Your task to perform on an android device: Open the calendar and show me this week's events? Image 0: 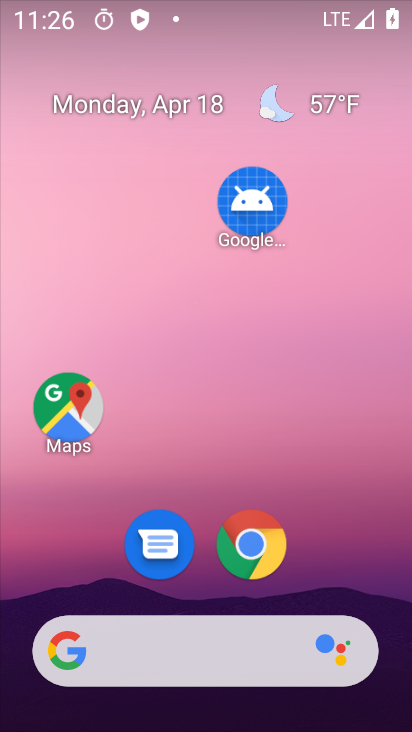
Step 0: drag from (157, 575) to (192, 272)
Your task to perform on an android device: Open the calendar and show me this week's events? Image 1: 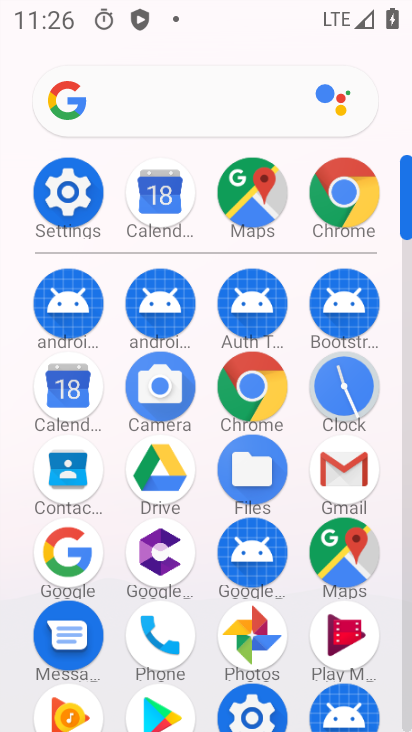
Step 1: click (56, 387)
Your task to perform on an android device: Open the calendar and show me this week's events? Image 2: 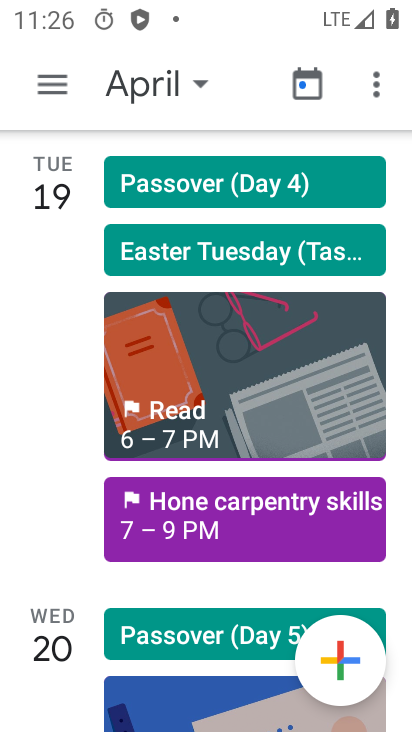
Step 2: click (47, 86)
Your task to perform on an android device: Open the calendar and show me this week's events? Image 3: 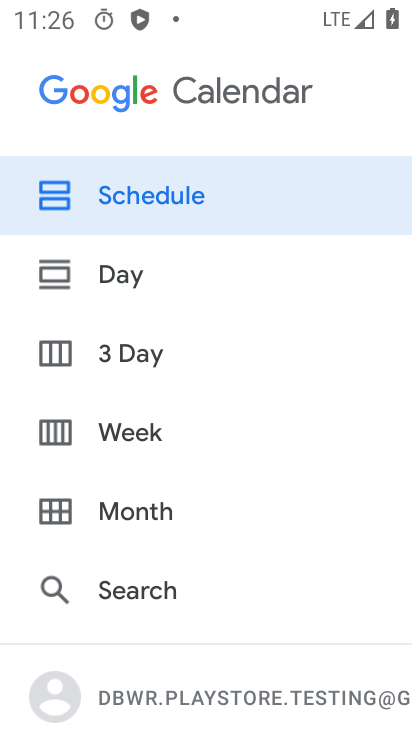
Step 3: click (134, 510)
Your task to perform on an android device: Open the calendar and show me this week's events? Image 4: 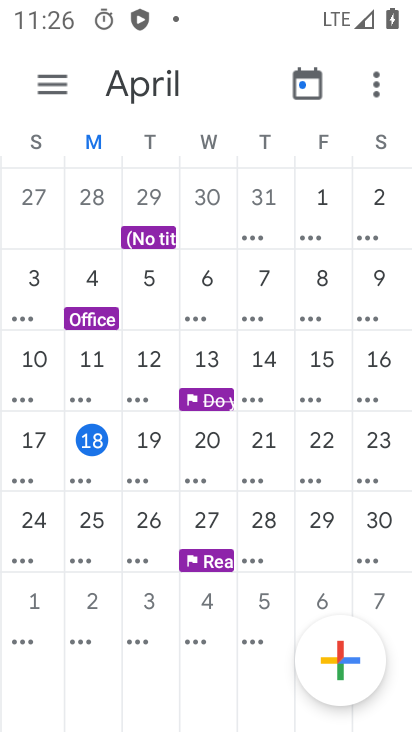
Step 4: click (206, 551)
Your task to perform on an android device: Open the calendar and show me this week's events? Image 5: 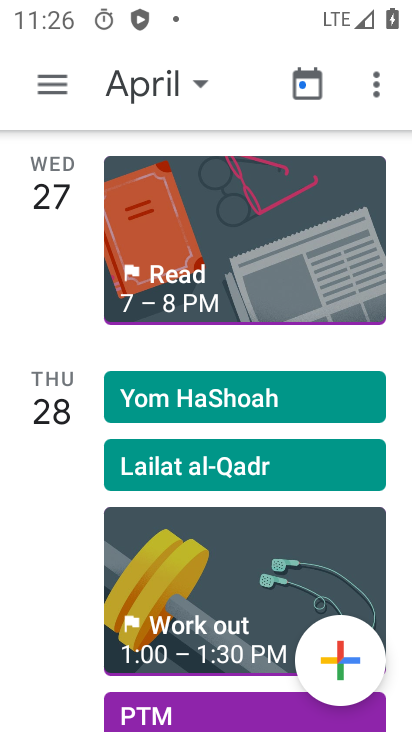
Step 5: task complete